Your task to perform on an android device: check out phone information Image 0: 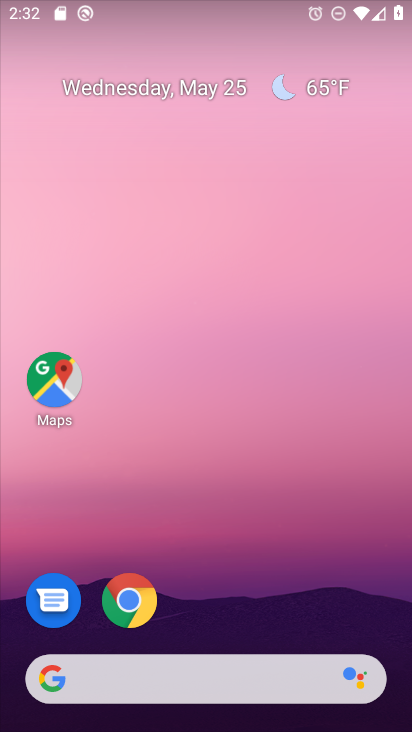
Step 0: drag from (309, 610) to (338, 111)
Your task to perform on an android device: check out phone information Image 1: 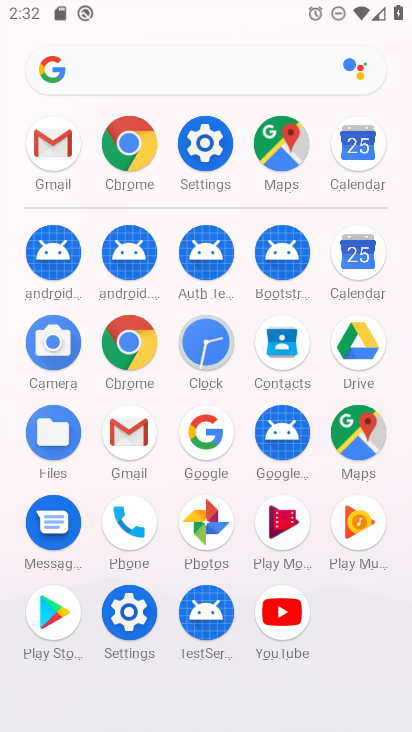
Step 1: click (120, 510)
Your task to perform on an android device: check out phone information Image 2: 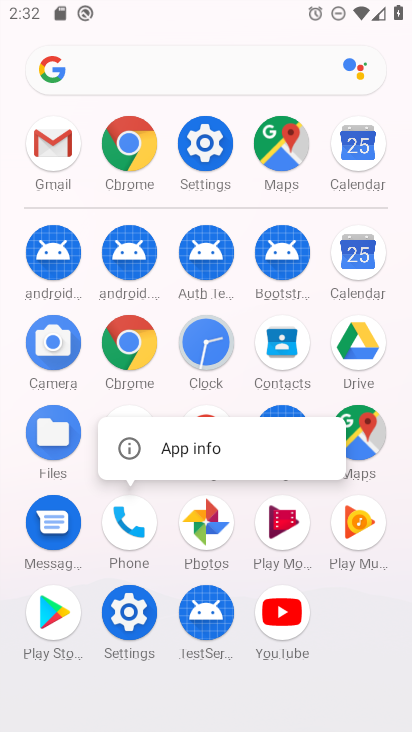
Step 2: click (167, 450)
Your task to perform on an android device: check out phone information Image 3: 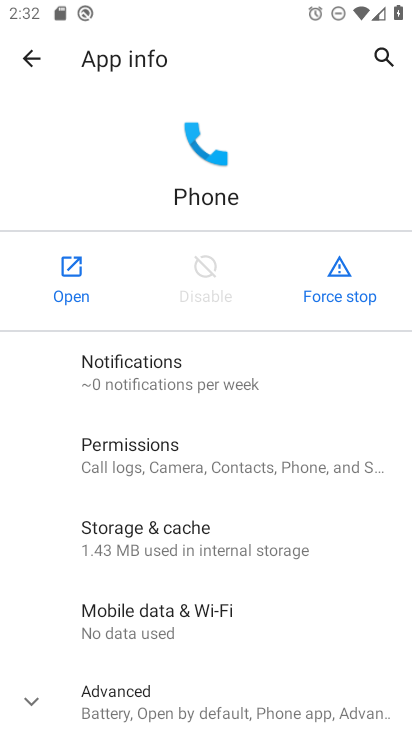
Step 3: task complete